Your task to perform on an android device: Open Google Chrome and click the shortcut for Amazon.com Image 0: 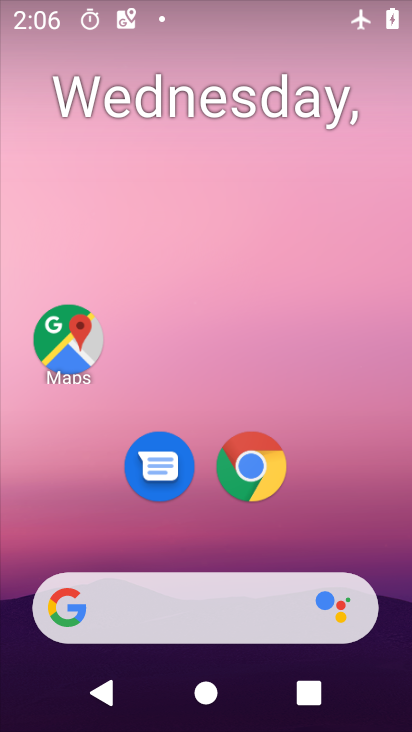
Step 0: click (267, 479)
Your task to perform on an android device: Open Google Chrome and click the shortcut for Amazon.com Image 1: 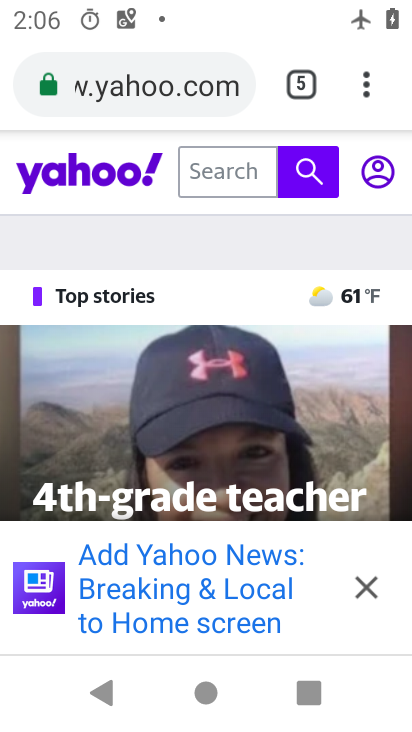
Step 1: click (299, 83)
Your task to perform on an android device: Open Google Chrome and click the shortcut for Amazon.com Image 2: 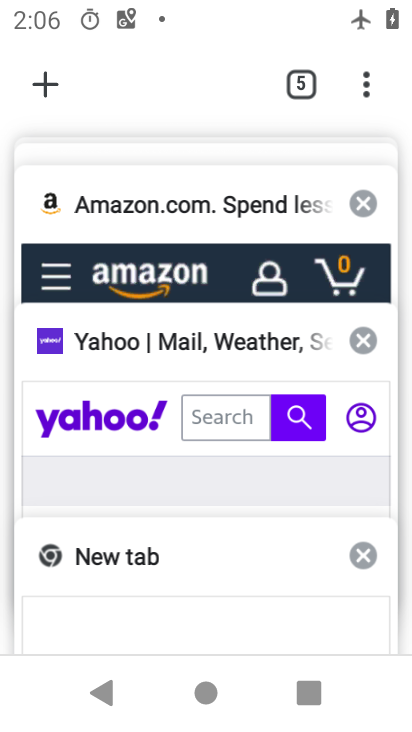
Step 2: click (188, 262)
Your task to perform on an android device: Open Google Chrome and click the shortcut for Amazon.com Image 3: 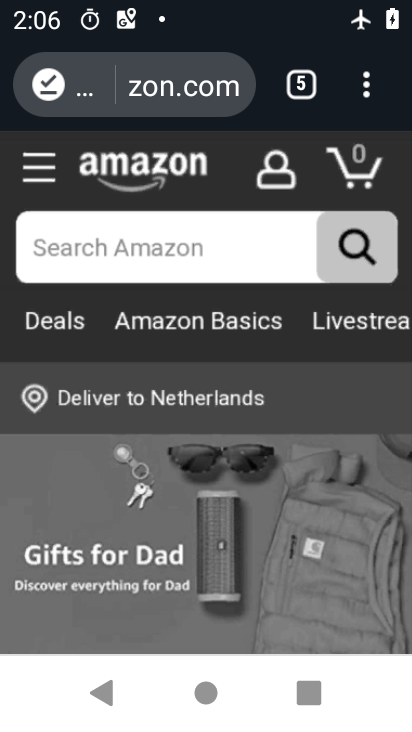
Step 3: task complete